Your task to perform on an android device: Play the last video I watched on Youtube Image 0: 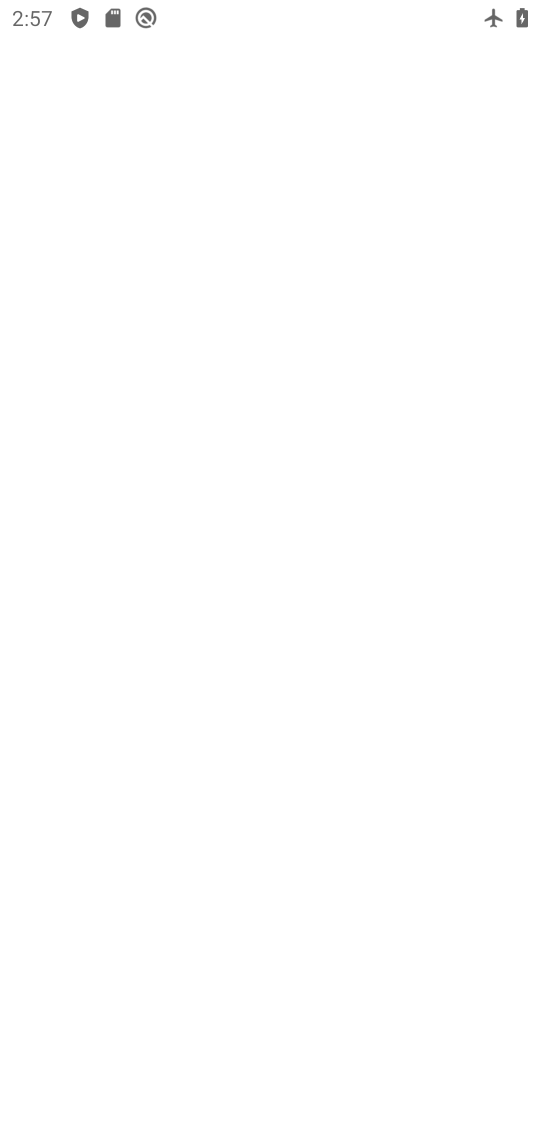
Step 0: task complete